Your task to perform on an android device: Check the news Image 0: 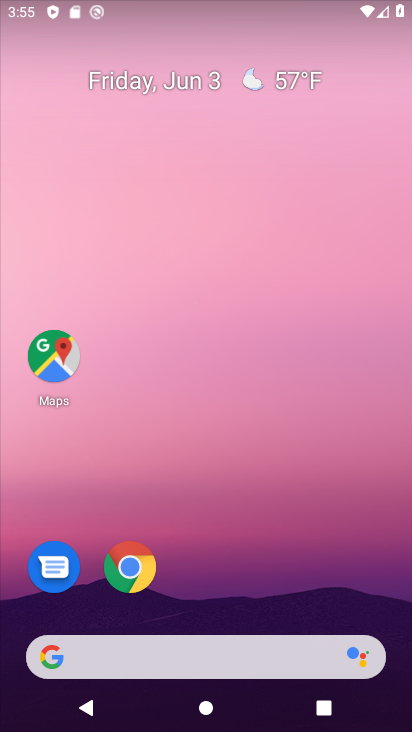
Step 0: drag from (291, 570) to (294, 28)
Your task to perform on an android device: Check the news Image 1: 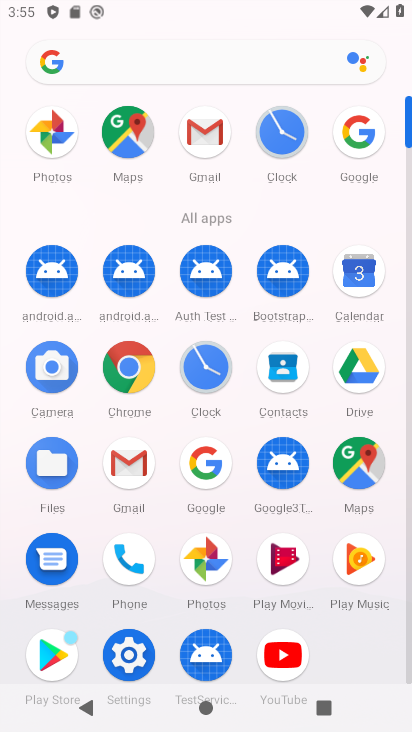
Step 1: click (381, 179)
Your task to perform on an android device: Check the news Image 2: 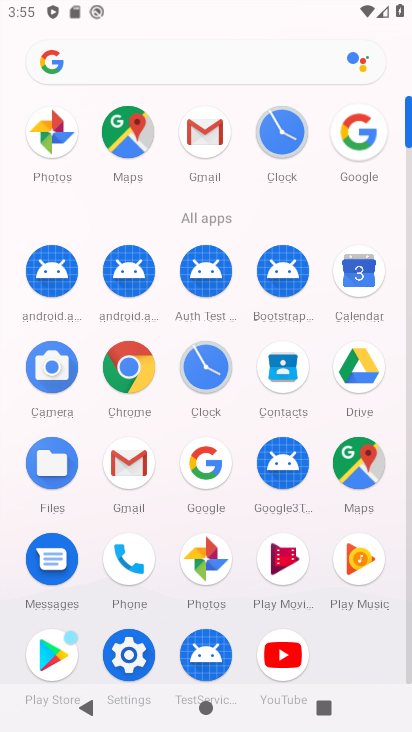
Step 2: click (371, 148)
Your task to perform on an android device: Check the news Image 3: 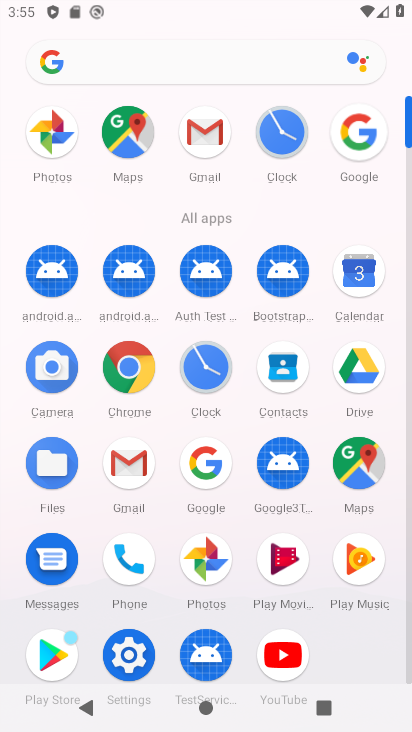
Step 3: click (360, 134)
Your task to perform on an android device: Check the news Image 4: 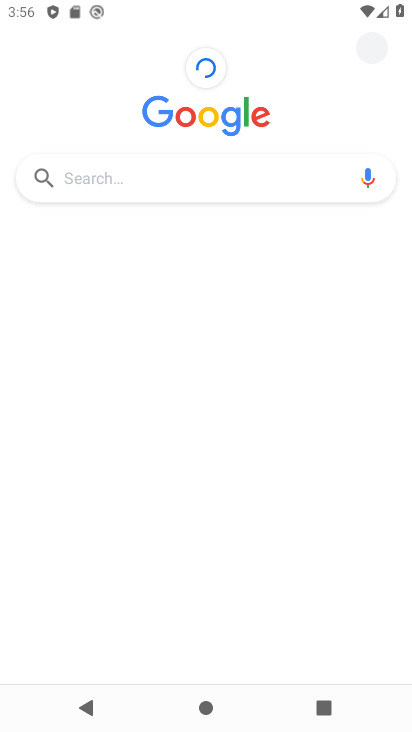
Step 4: click (157, 177)
Your task to perform on an android device: Check the news Image 5: 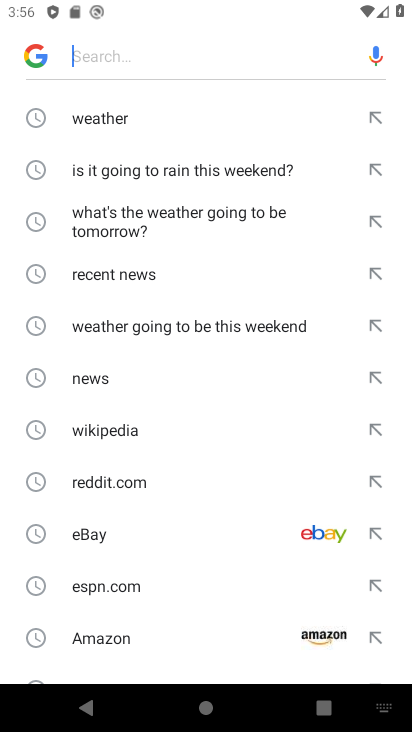
Step 5: click (141, 363)
Your task to perform on an android device: Check the news Image 6: 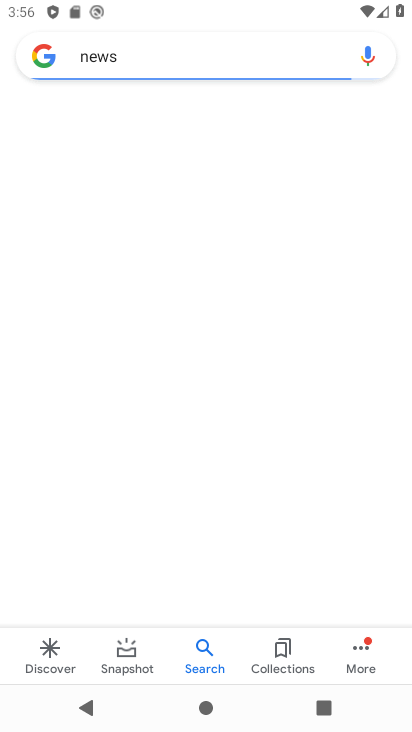
Step 6: task complete